Your task to perform on an android device: add a contact in the contacts app Image 0: 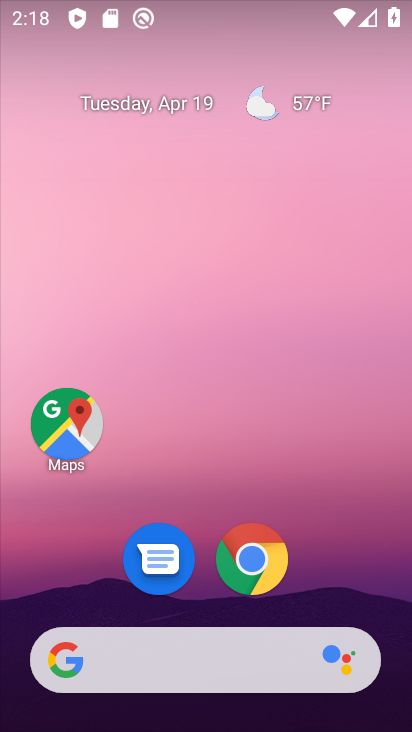
Step 0: drag from (384, 578) to (377, 105)
Your task to perform on an android device: add a contact in the contacts app Image 1: 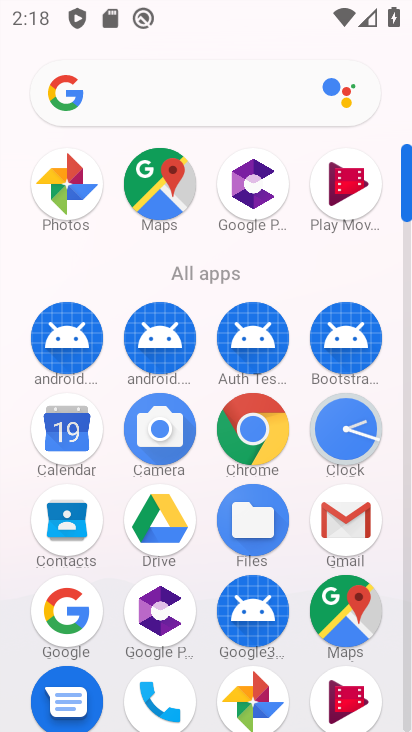
Step 1: click (59, 525)
Your task to perform on an android device: add a contact in the contacts app Image 2: 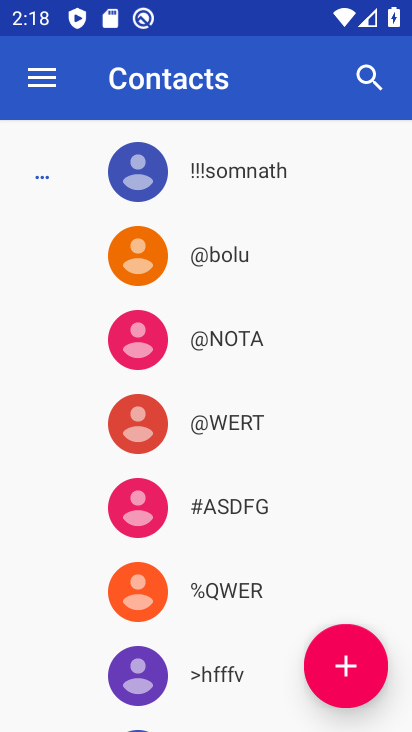
Step 2: click (361, 655)
Your task to perform on an android device: add a contact in the contacts app Image 3: 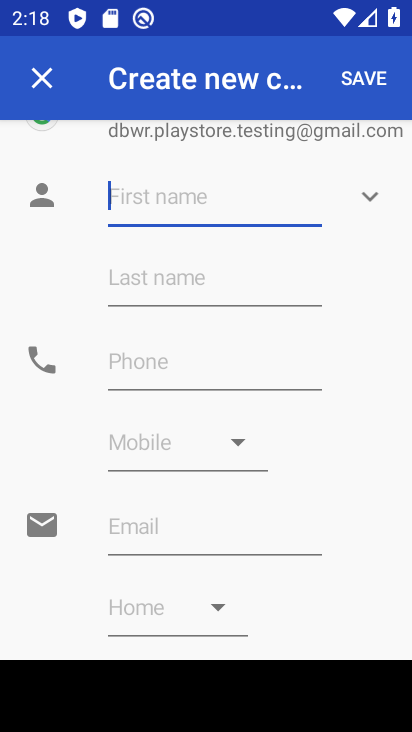
Step 3: click (192, 207)
Your task to perform on an android device: add a contact in the contacts app Image 4: 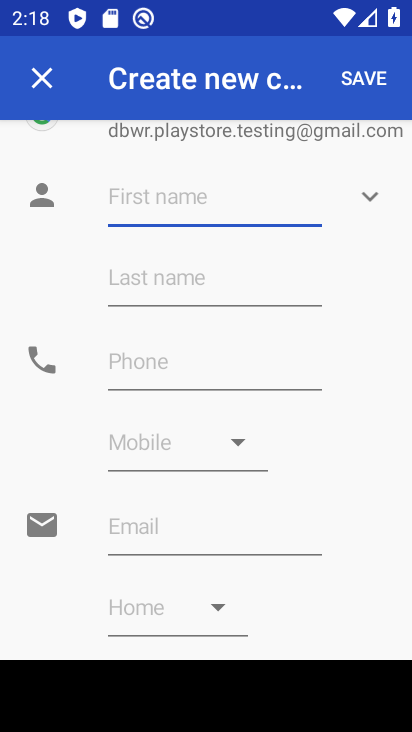
Step 4: type "betu"
Your task to perform on an android device: add a contact in the contacts app Image 5: 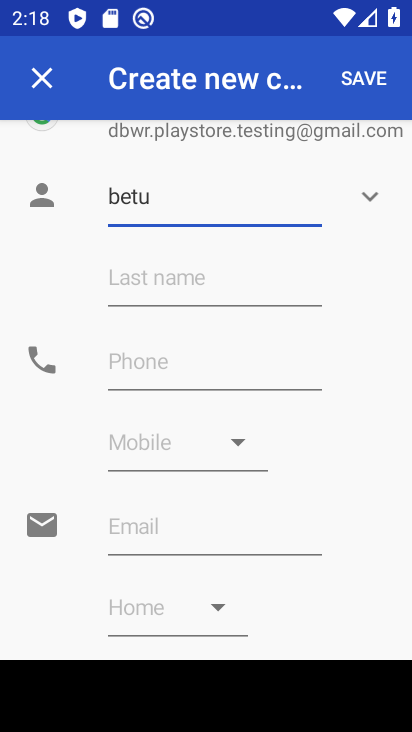
Step 5: click (302, 380)
Your task to perform on an android device: add a contact in the contacts app Image 6: 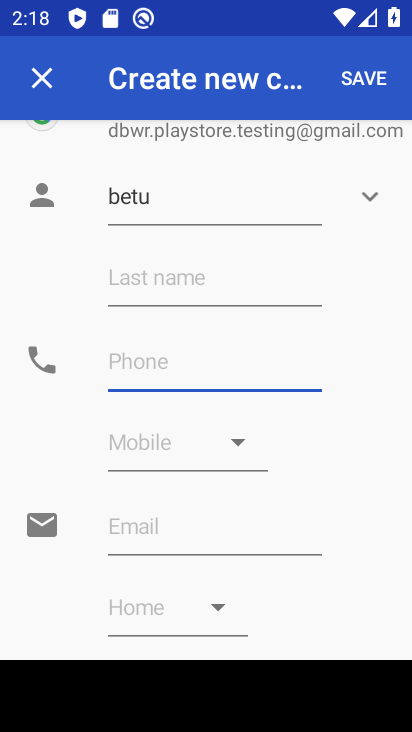
Step 6: type "1234567890"
Your task to perform on an android device: add a contact in the contacts app Image 7: 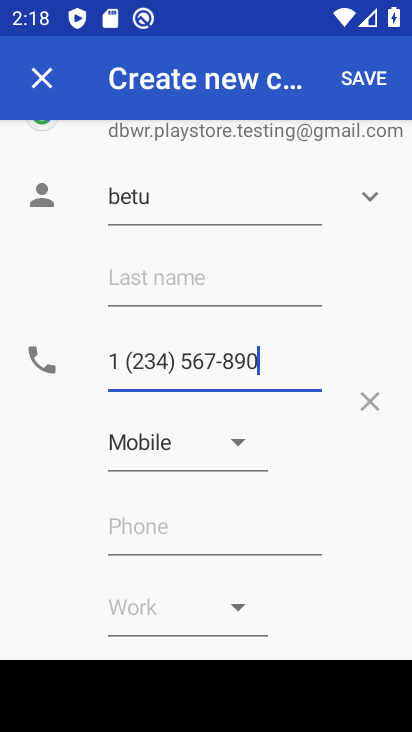
Step 7: click (355, 80)
Your task to perform on an android device: add a contact in the contacts app Image 8: 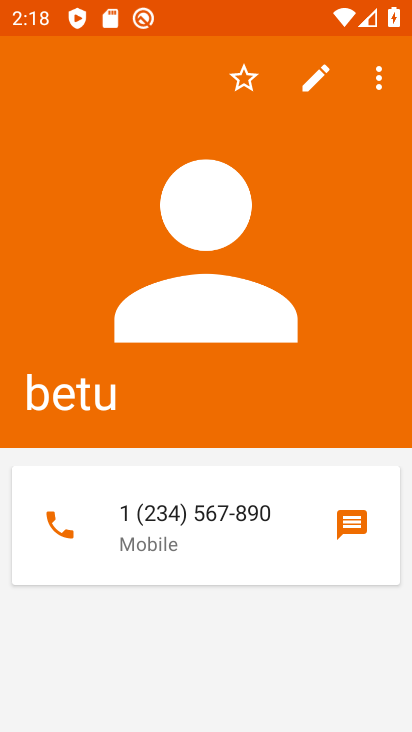
Step 8: task complete